Your task to perform on an android device: open app "Firefox Browser" Image 0: 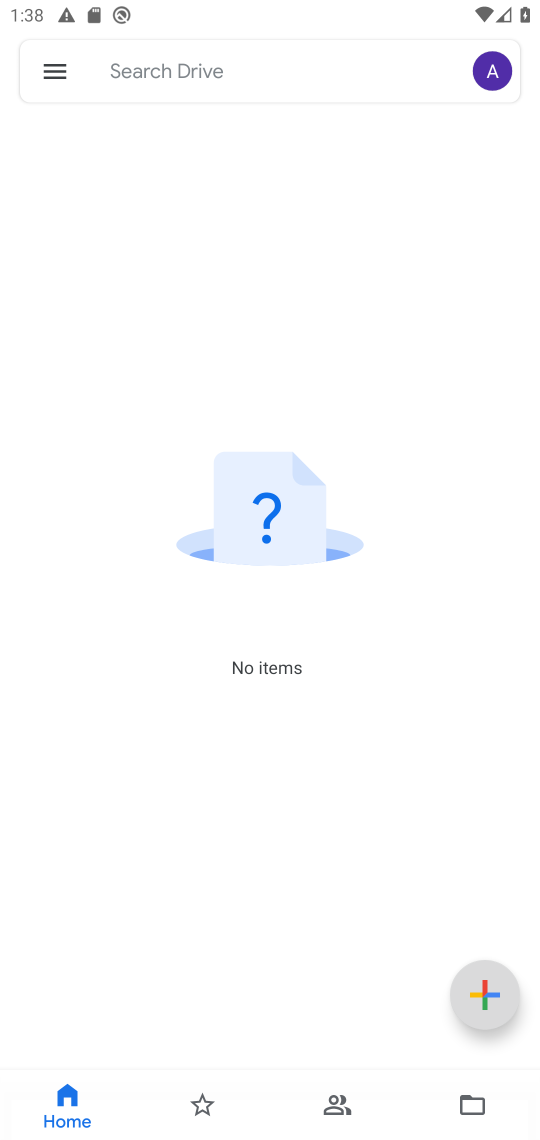
Step 0: press home button
Your task to perform on an android device: open app "Firefox Browser" Image 1: 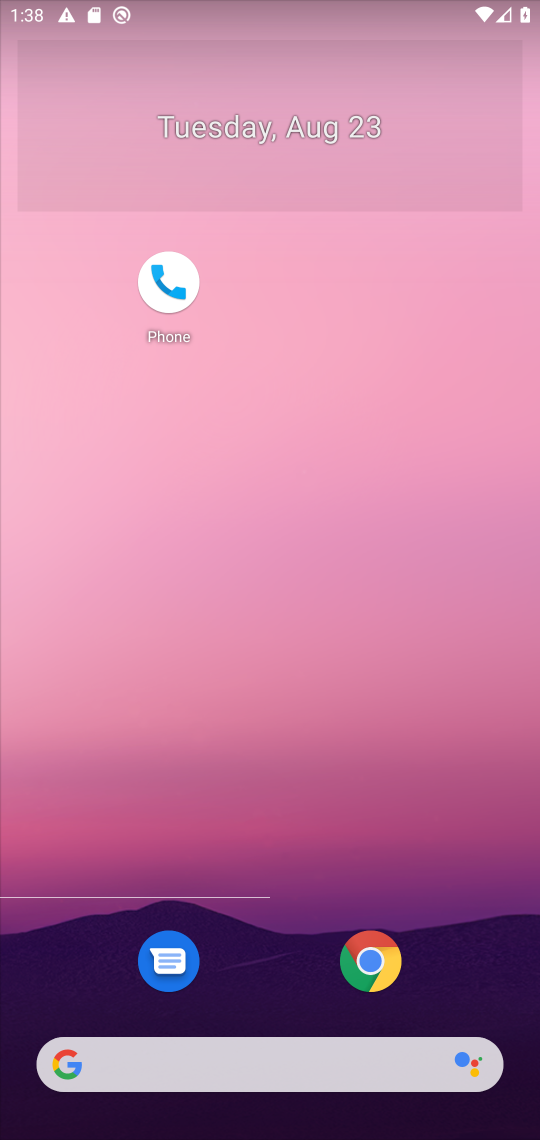
Step 1: drag from (267, 1001) to (295, 206)
Your task to perform on an android device: open app "Firefox Browser" Image 2: 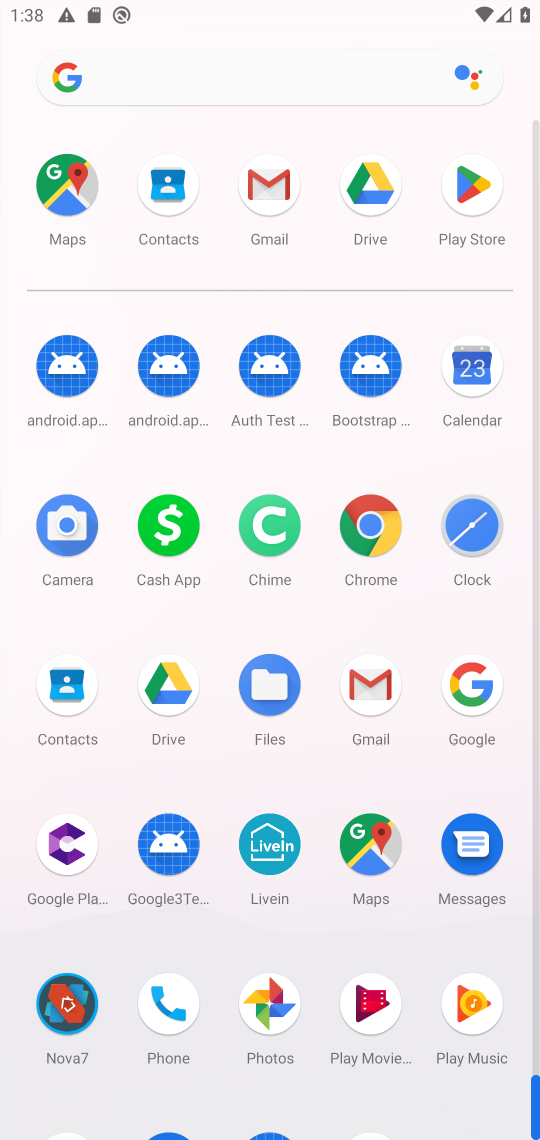
Step 2: click (466, 179)
Your task to perform on an android device: open app "Firefox Browser" Image 3: 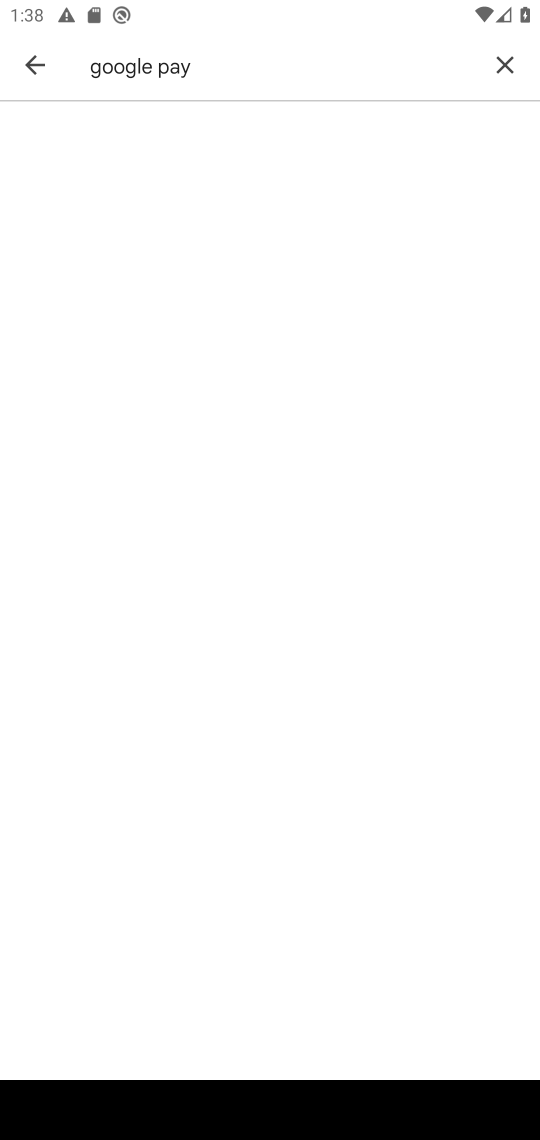
Step 3: click (498, 73)
Your task to perform on an android device: open app "Firefox Browser" Image 4: 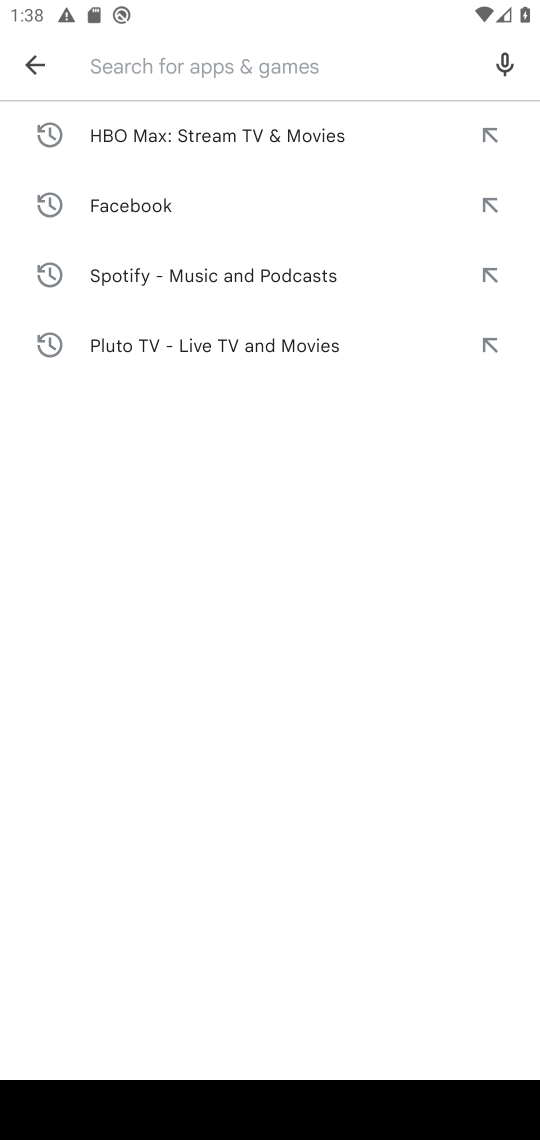
Step 4: type "firefox"
Your task to perform on an android device: open app "Firefox Browser" Image 5: 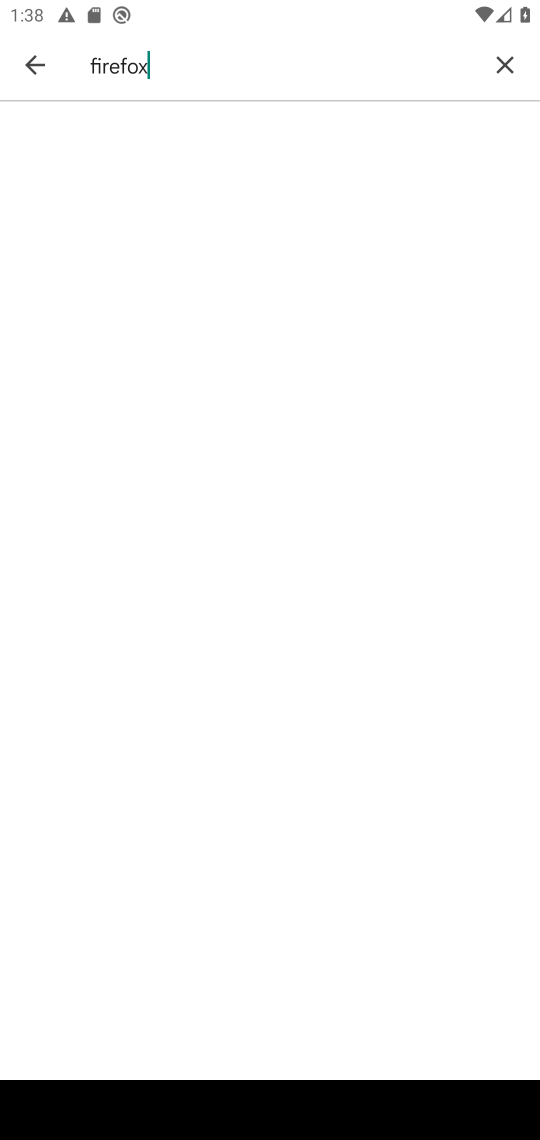
Step 5: task complete